Your task to perform on an android device: Open settings on Google Maps Image 0: 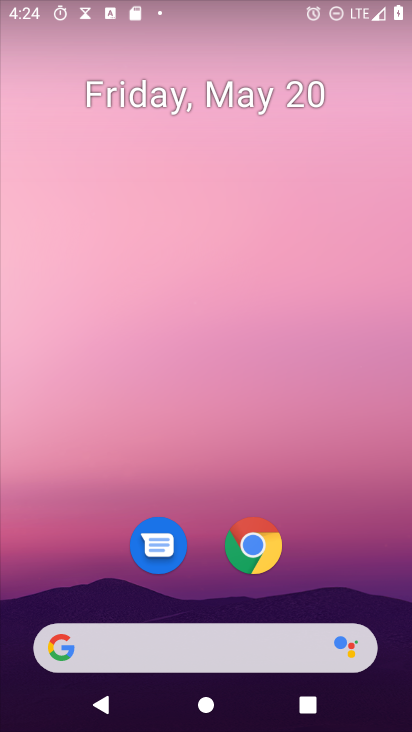
Step 0: drag from (196, 510) to (227, 2)
Your task to perform on an android device: Open settings on Google Maps Image 1: 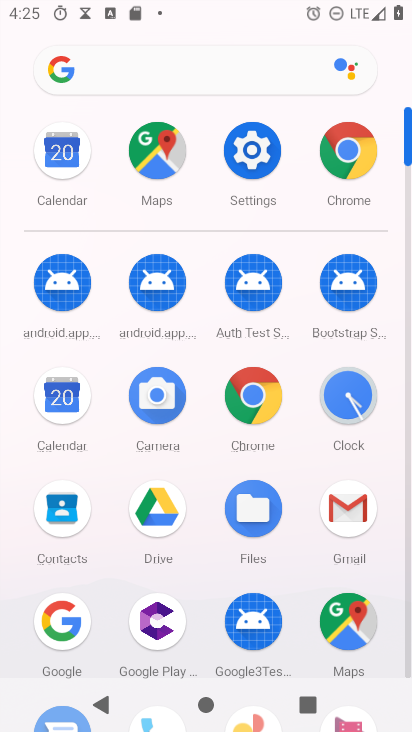
Step 1: click (334, 610)
Your task to perform on an android device: Open settings on Google Maps Image 2: 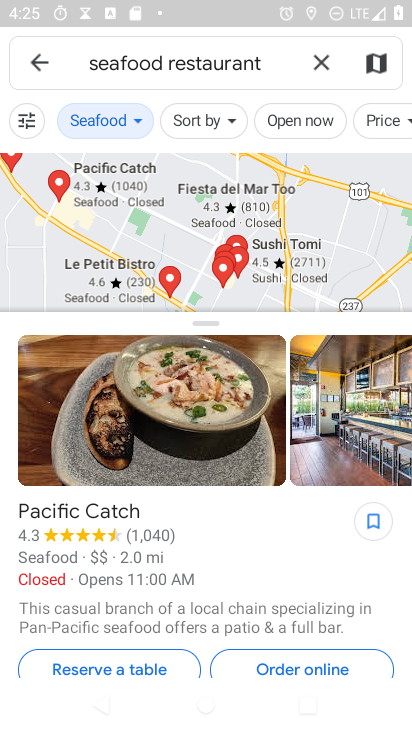
Step 2: press back button
Your task to perform on an android device: Open settings on Google Maps Image 3: 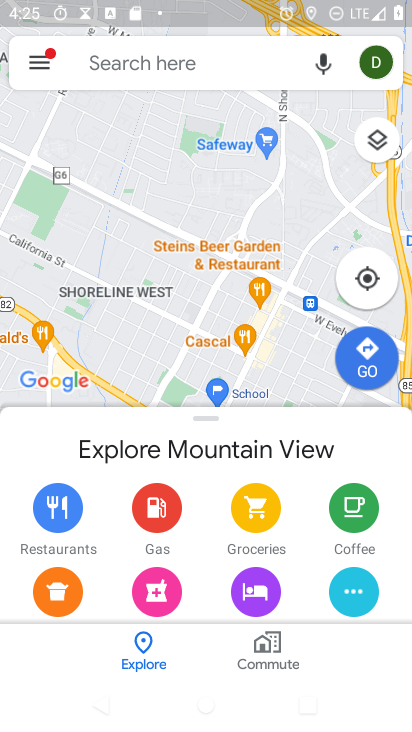
Step 3: click (48, 55)
Your task to perform on an android device: Open settings on Google Maps Image 4: 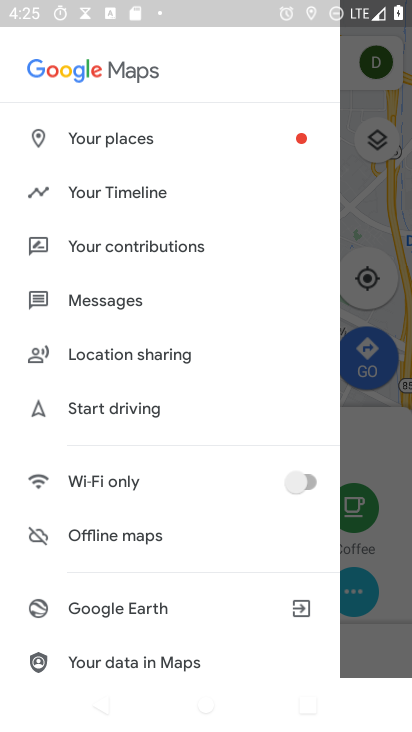
Step 4: click (126, 202)
Your task to perform on an android device: Open settings on Google Maps Image 5: 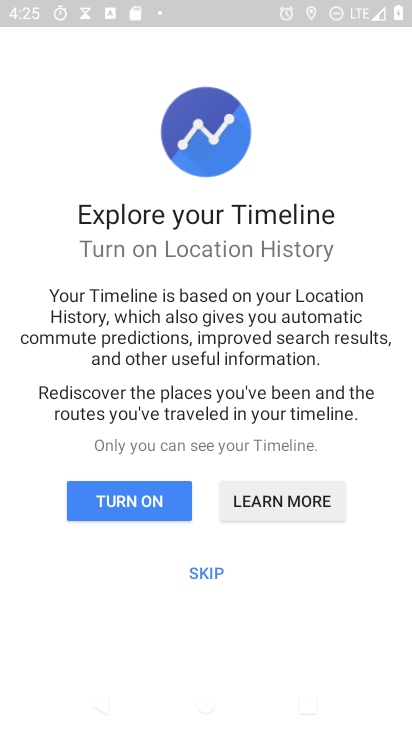
Step 5: click (196, 571)
Your task to perform on an android device: Open settings on Google Maps Image 6: 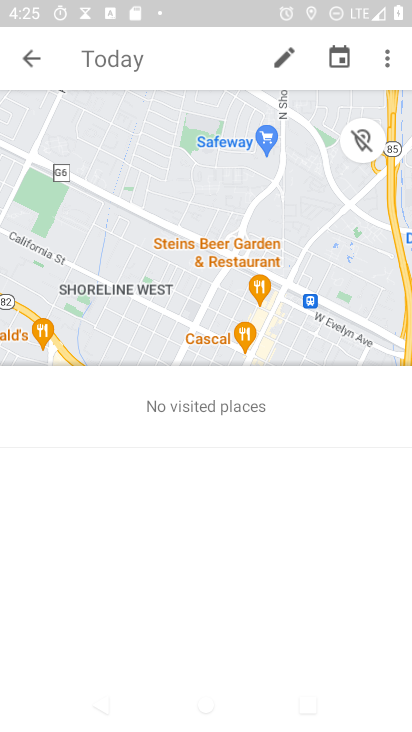
Step 6: click (386, 57)
Your task to perform on an android device: Open settings on Google Maps Image 7: 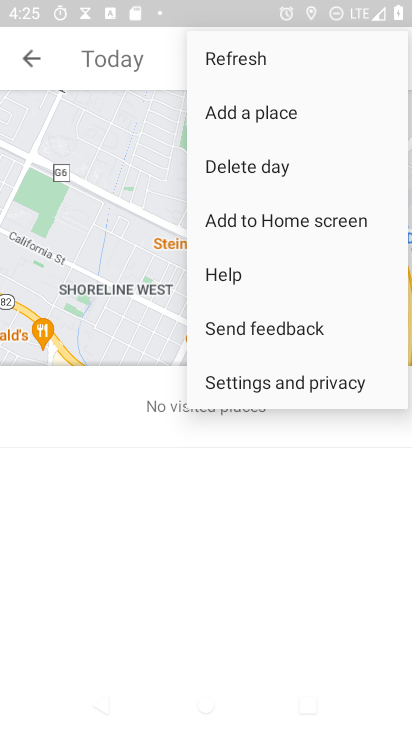
Step 7: click (255, 387)
Your task to perform on an android device: Open settings on Google Maps Image 8: 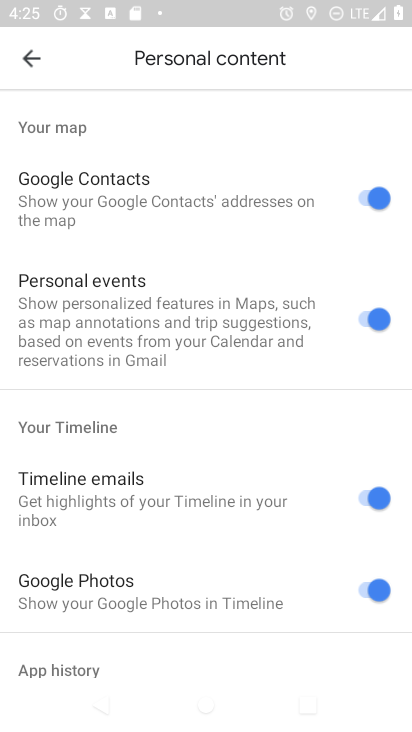
Step 8: task complete